Your task to perform on an android device: change notification settings in the gmail app Image 0: 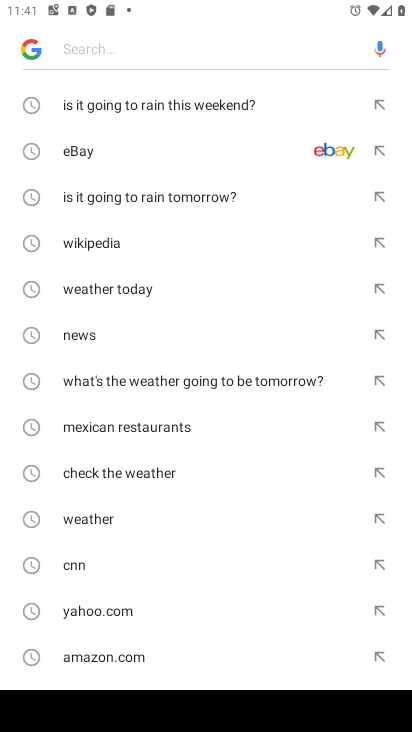
Step 0: press home button
Your task to perform on an android device: change notification settings in the gmail app Image 1: 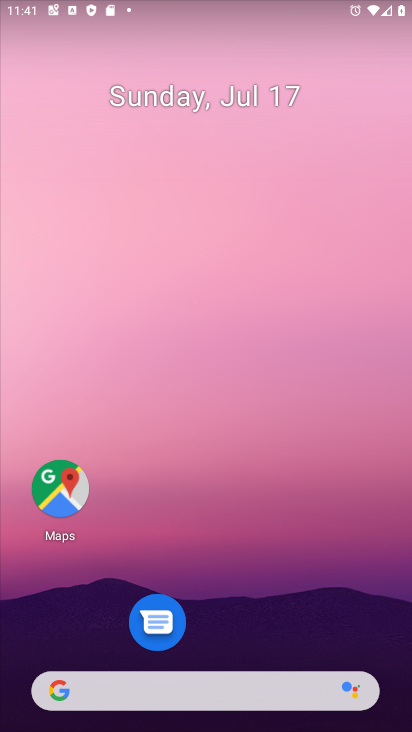
Step 1: drag from (211, 724) to (236, 82)
Your task to perform on an android device: change notification settings in the gmail app Image 2: 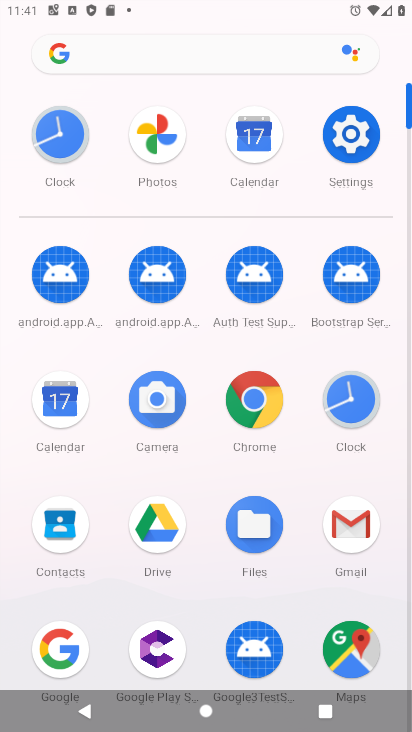
Step 2: click (336, 529)
Your task to perform on an android device: change notification settings in the gmail app Image 3: 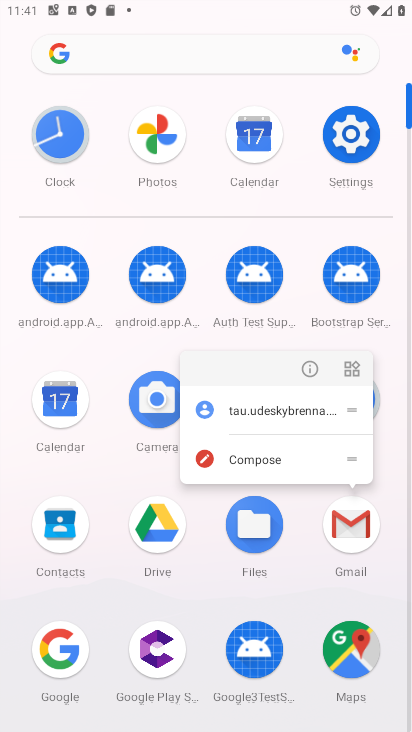
Step 3: click (310, 365)
Your task to perform on an android device: change notification settings in the gmail app Image 4: 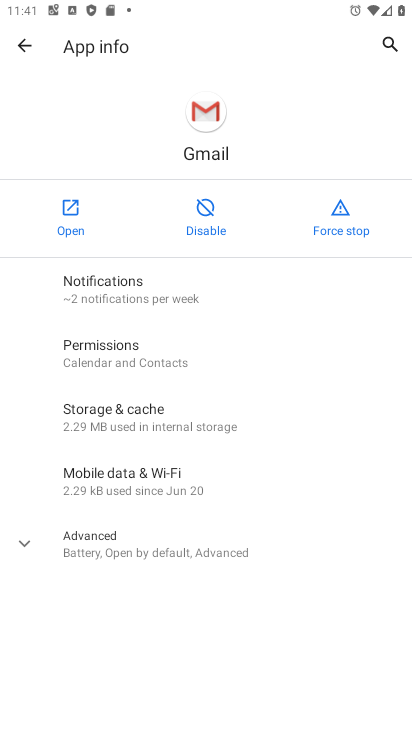
Step 4: click (165, 303)
Your task to perform on an android device: change notification settings in the gmail app Image 5: 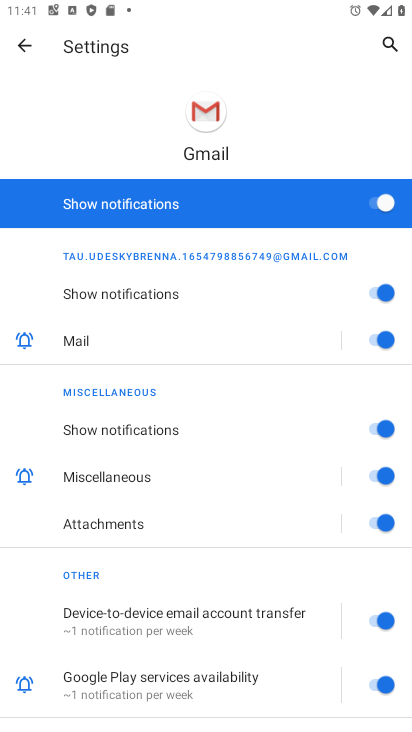
Step 5: click (380, 202)
Your task to perform on an android device: change notification settings in the gmail app Image 6: 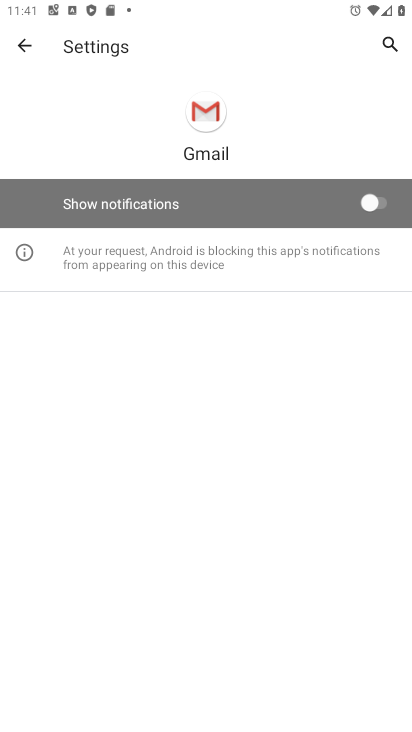
Step 6: task complete